Your task to perform on an android device: check storage Image 0: 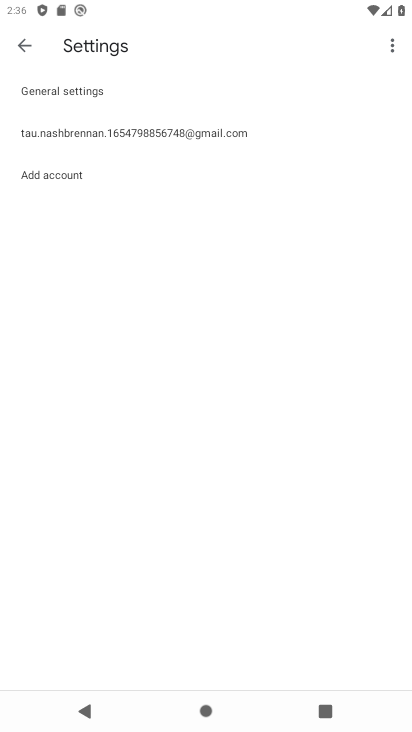
Step 0: press home button
Your task to perform on an android device: check storage Image 1: 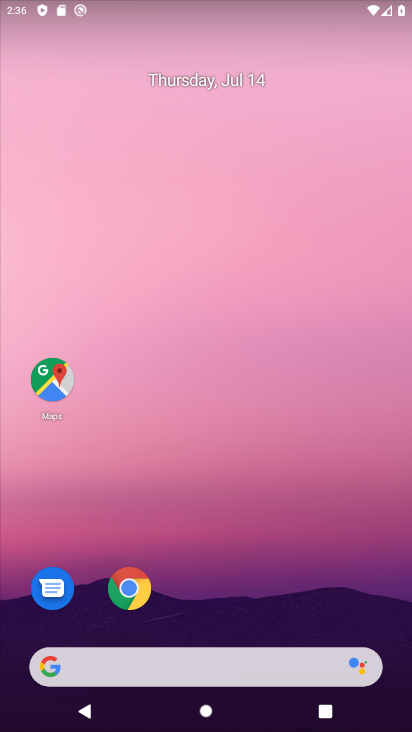
Step 1: drag from (196, 623) to (143, 25)
Your task to perform on an android device: check storage Image 2: 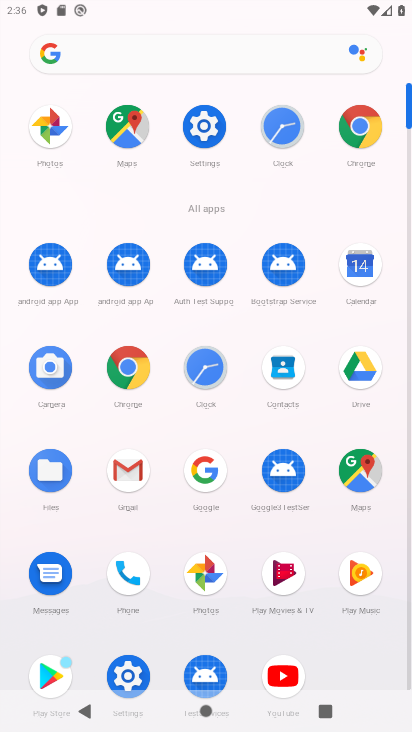
Step 2: click (195, 110)
Your task to perform on an android device: check storage Image 3: 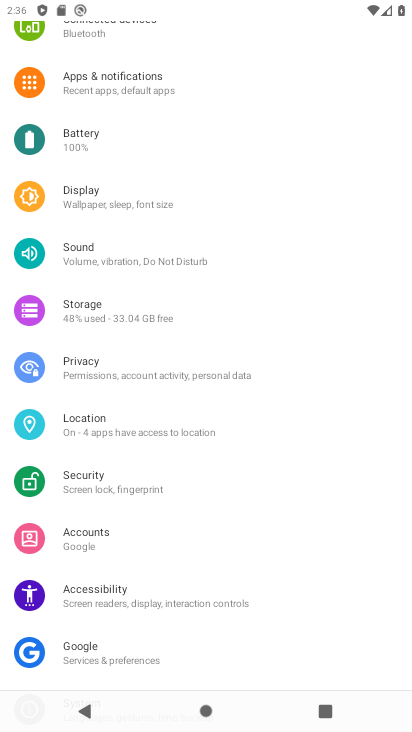
Step 3: click (116, 308)
Your task to perform on an android device: check storage Image 4: 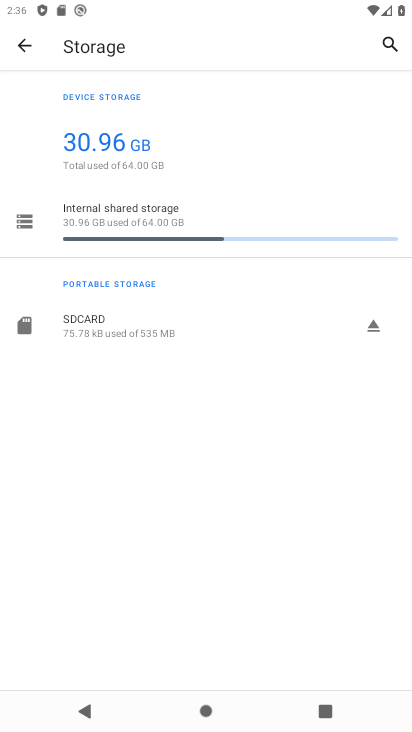
Step 4: click (128, 153)
Your task to perform on an android device: check storage Image 5: 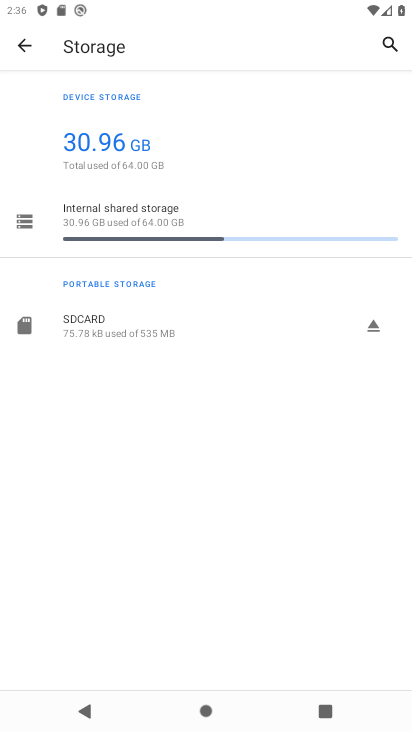
Step 5: task complete